Your task to perform on an android device: Open the Play Movies app and select the watchlist tab. Image 0: 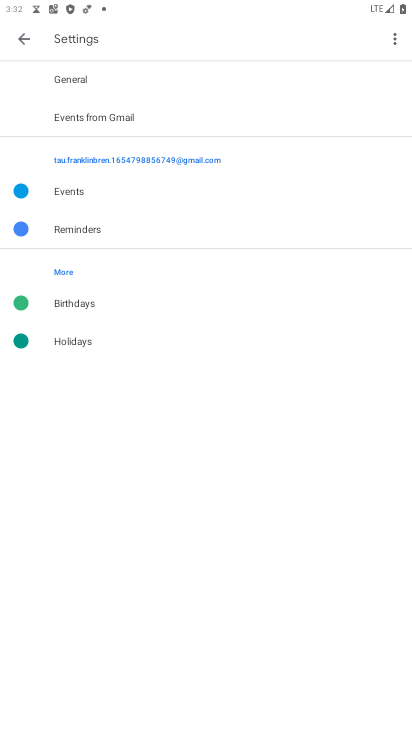
Step 0: press home button
Your task to perform on an android device: Open the Play Movies app and select the watchlist tab. Image 1: 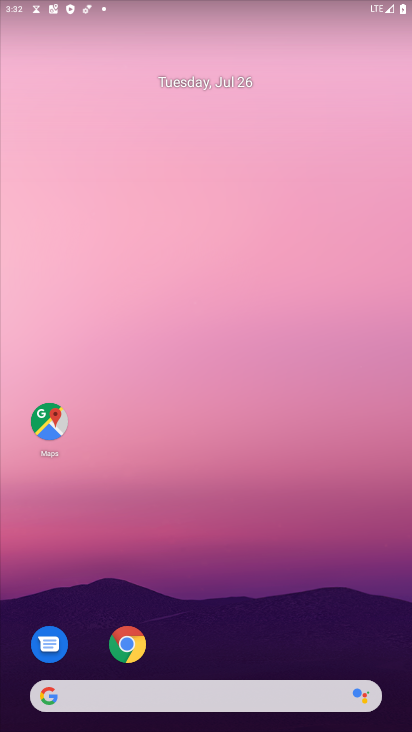
Step 1: drag from (284, 680) to (252, 161)
Your task to perform on an android device: Open the Play Movies app and select the watchlist tab. Image 2: 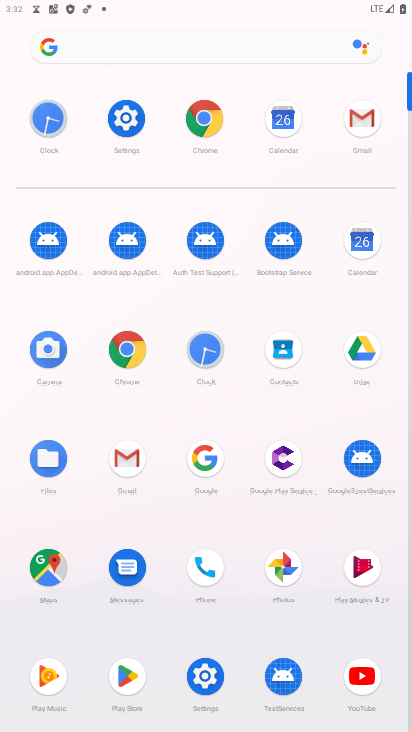
Step 2: click (378, 579)
Your task to perform on an android device: Open the Play Movies app and select the watchlist tab. Image 3: 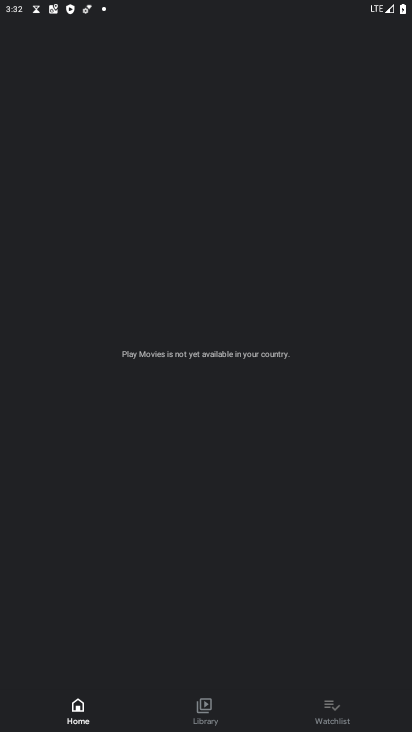
Step 3: click (339, 713)
Your task to perform on an android device: Open the Play Movies app and select the watchlist tab. Image 4: 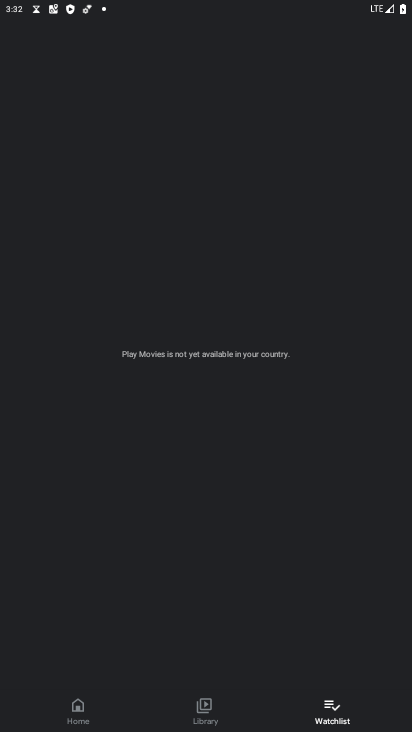
Step 4: task complete